Your task to perform on an android device: Open Yahoo.com Image 0: 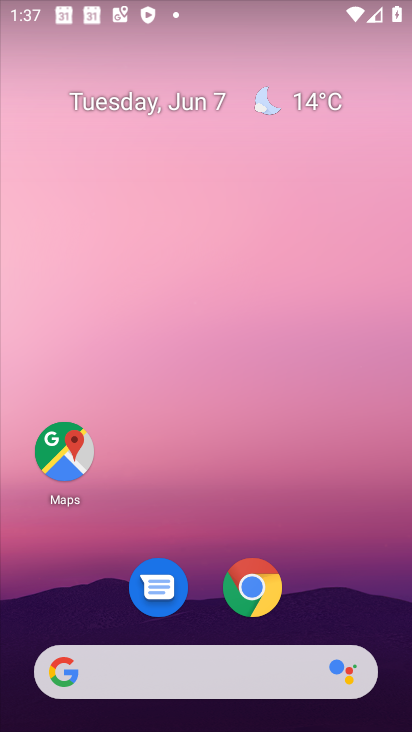
Step 0: drag from (310, 643) to (314, 109)
Your task to perform on an android device: Open Yahoo.com Image 1: 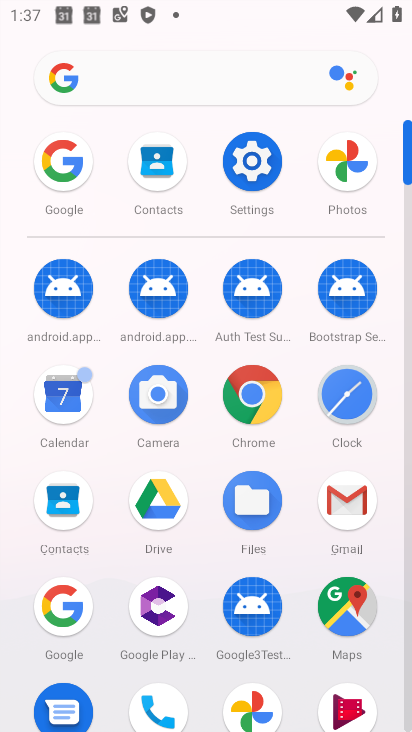
Step 1: click (264, 412)
Your task to perform on an android device: Open Yahoo.com Image 2: 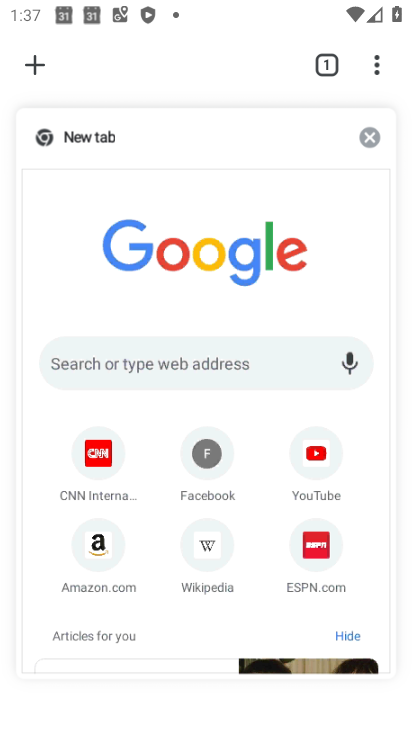
Step 2: click (261, 393)
Your task to perform on an android device: Open Yahoo.com Image 3: 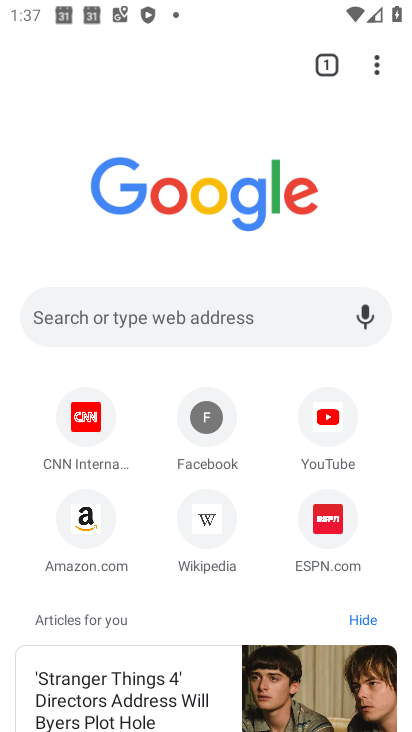
Step 3: click (239, 325)
Your task to perform on an android device: Open Yahoo.com Image 4: 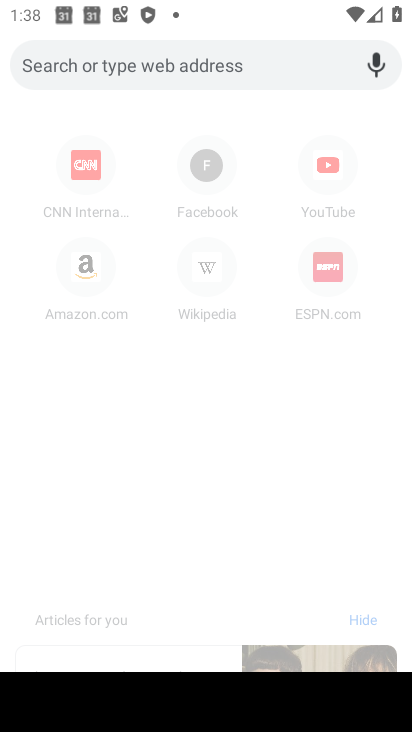
Step 4: type "yahoo"
Your task to perform on an android device: Open Yahoo.com Image 5: 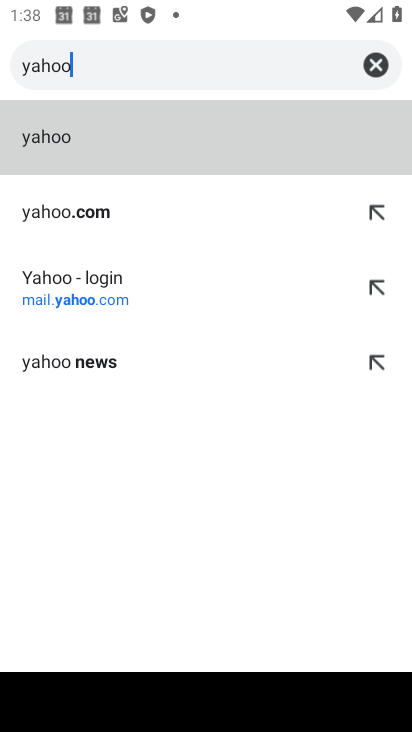
Step 5: click (187, 290)
Your task to perform on an android device: Open Yahoo.com Image 6: 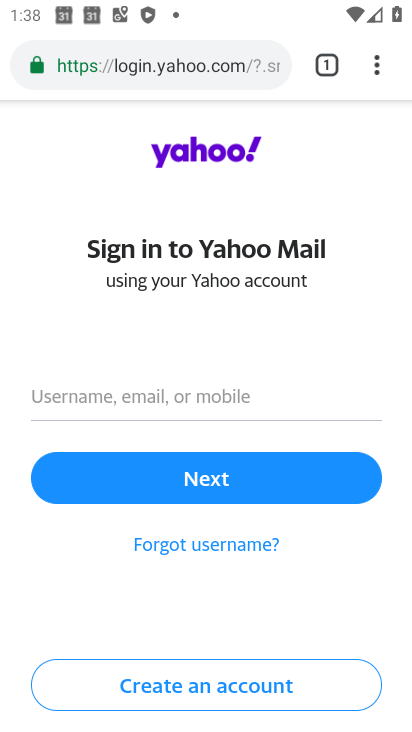
Step 6: task complete